Your task to perform on an android device: Go to Maps Image 0: 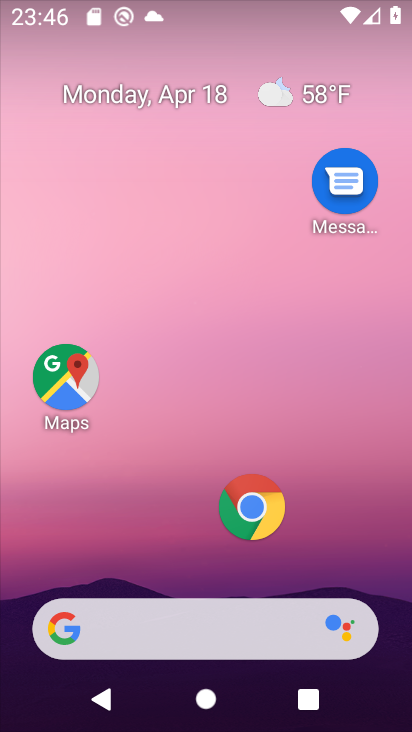
Step 0: click (52, 369)
Your task to perform on an android device: Go to Maps Image 1: 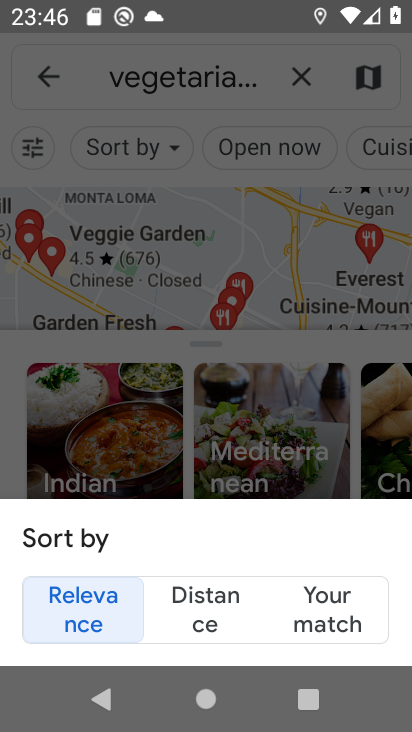
Step 1: click (38, 77)
Your task to perform on an android device: Go to Maps Image 2: 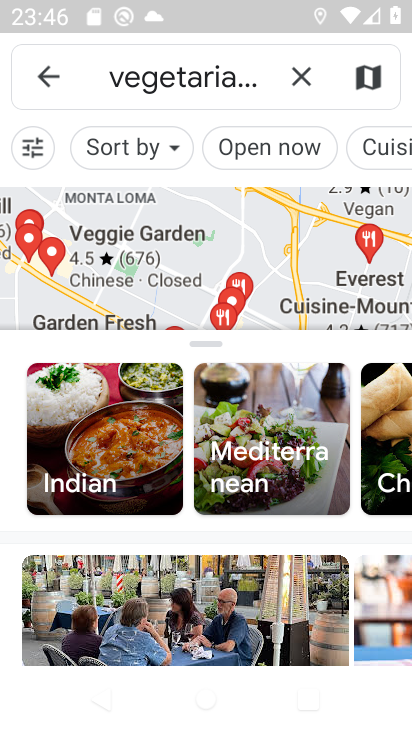
Step 2: task complete